Your task to perform on an android device: check android version Image 0: 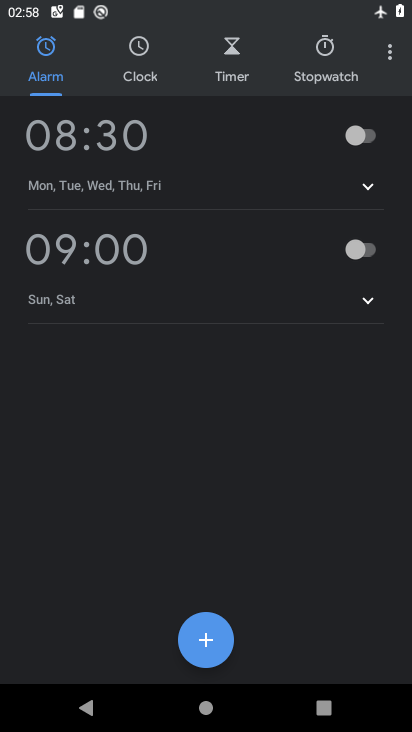
Step 0: press home button
Your task to perform on an android device: check android version Image 1: 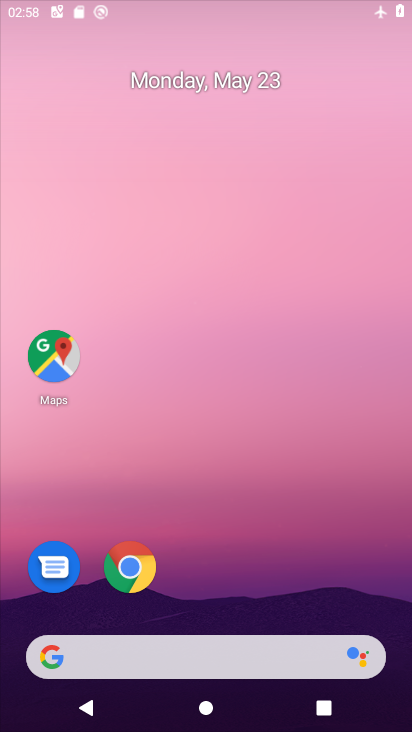
Step 1: drag from (215, 549) to (262, 116)
Your task to perform on an android device: check android version Image 2: 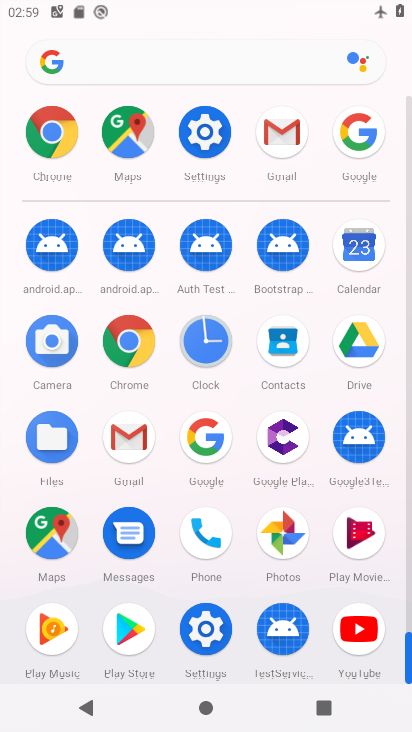
Step 2: click (196, 143)
Your task to perform on an android device: check android version Image 3: 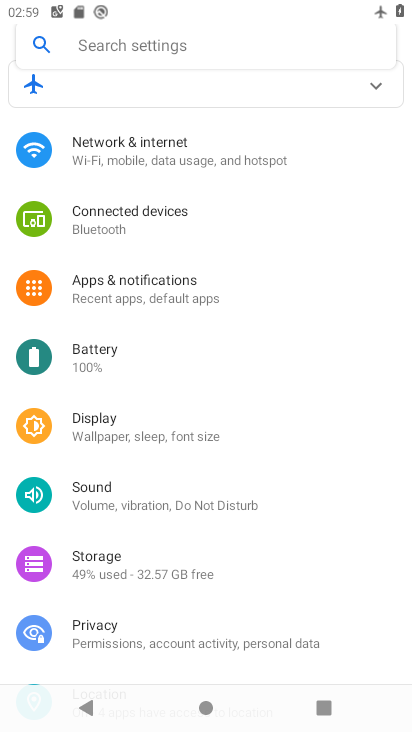
Step 3: drag from (202, 629) to (183, 222)
Your task to perform on an android device: check android version Image 4: 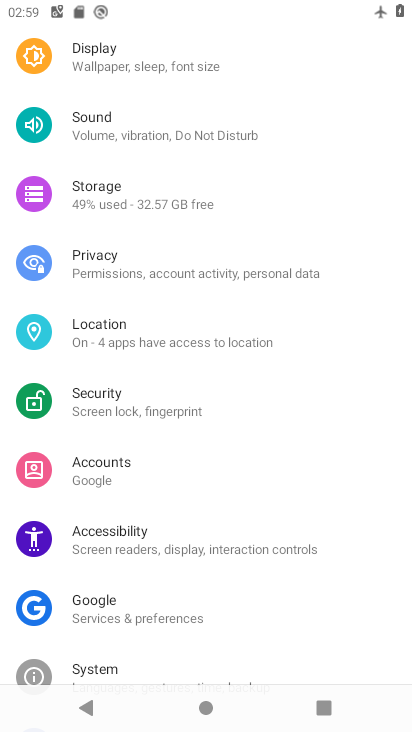
Step 4: drag from (148, 650) to (119, 241)
Your task to perform on an android device: check android version Image 5: 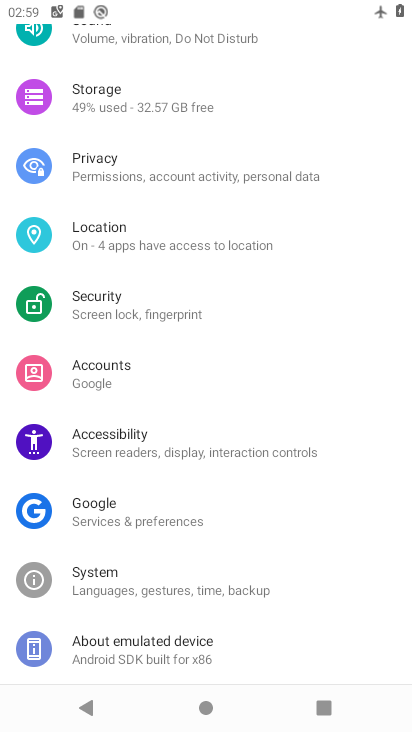
Step 5: click (127, 672)
Your task to perform on an android device: check android version Image 6: 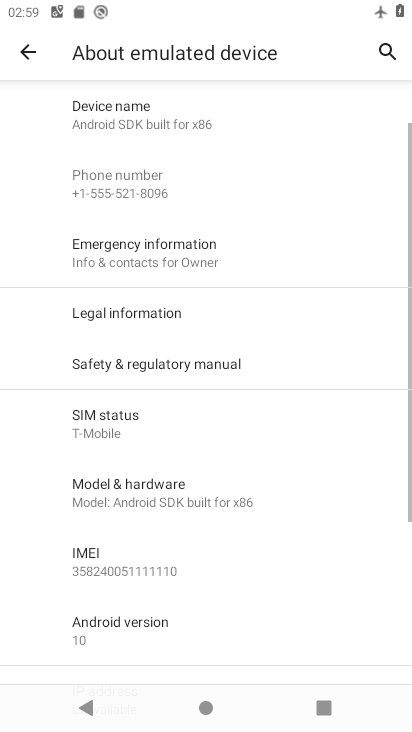
Step 6: click (143, 644)
Your task to perform on an android device: check android version Image 7: 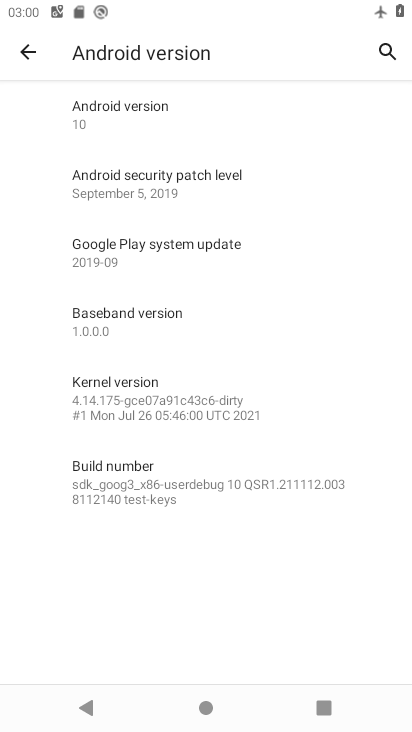
Step 7: click (179, 135)
Your task to perform on an android device: check android version Image 8: 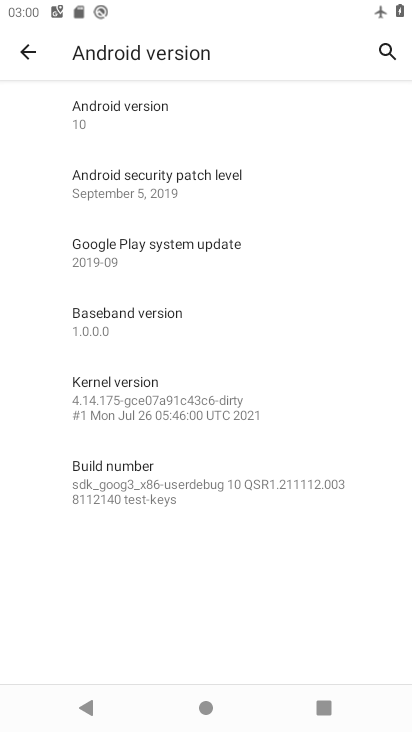
Step 8: task complete